Your task to perform on an android device: turn off location Image 0: 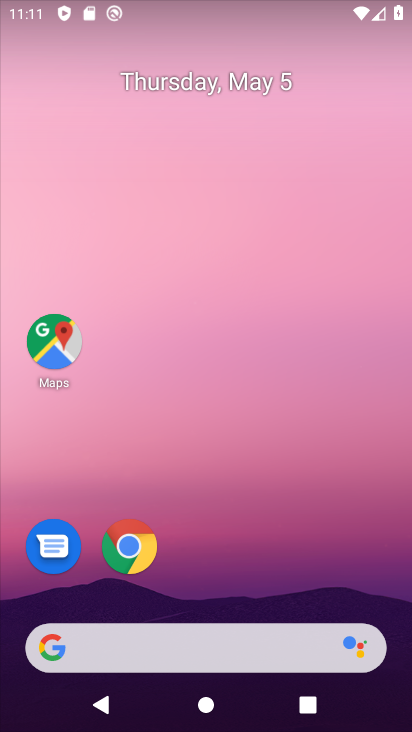
Step 0: drag from (198, 596) to (37, 47)
Your task to perform on an android device: turn off location Image 1: 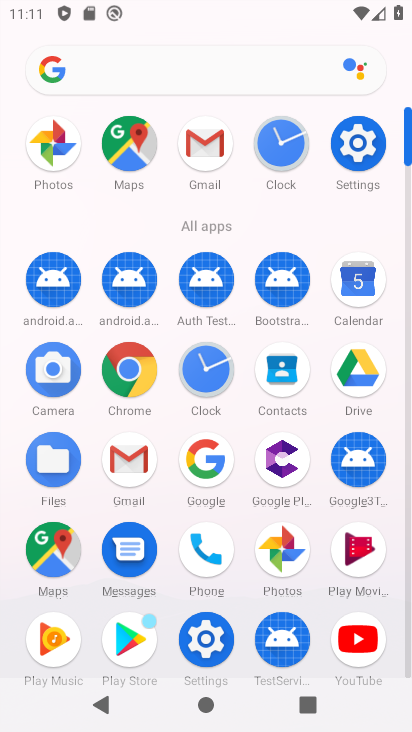
Step 1: click (217, 650)
Your task to perform on an android device: turn off location Image 2: 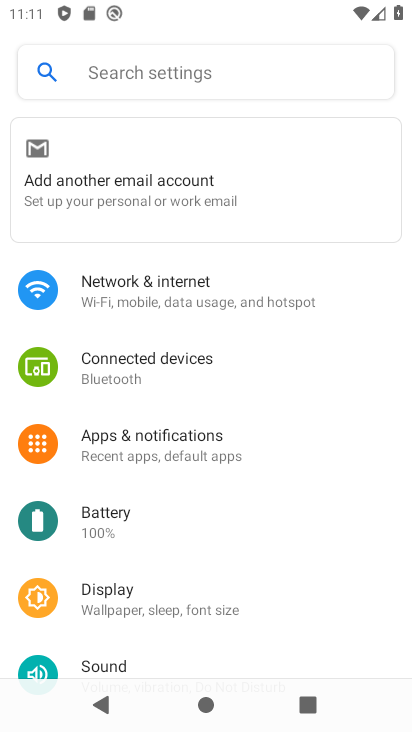
Step 2: drag from (184, 590) to (107, 147)
Your task to perform on an android device: turn off location Image 3: 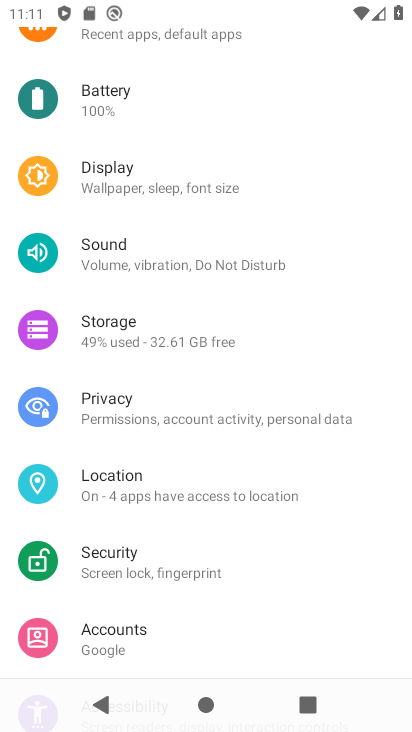
Step 3: click (104, 471)
Your task to perform on an android device: turn off location Image 4: 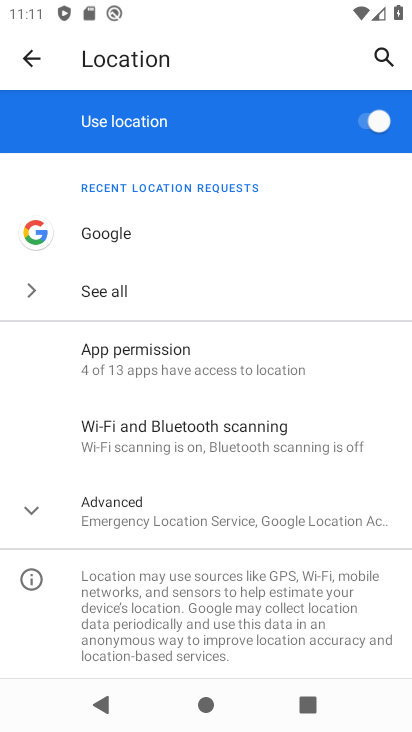
Step 4: click (366, 125)
Your task to perform on an android device: turn off location Image 5: 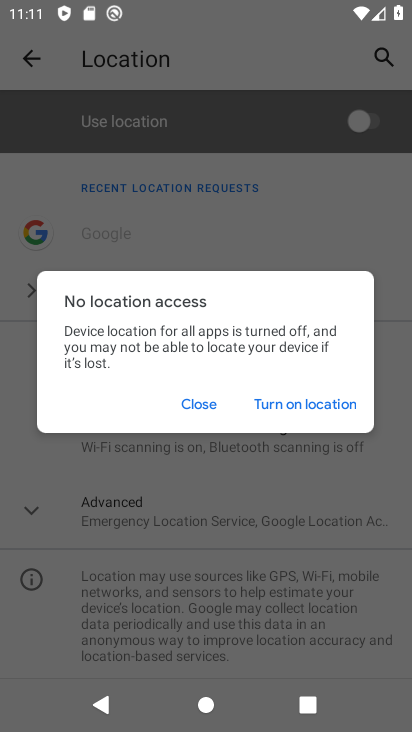
Step 5: task complete